Your task to perform on an android device: turn off wifi Image 0: 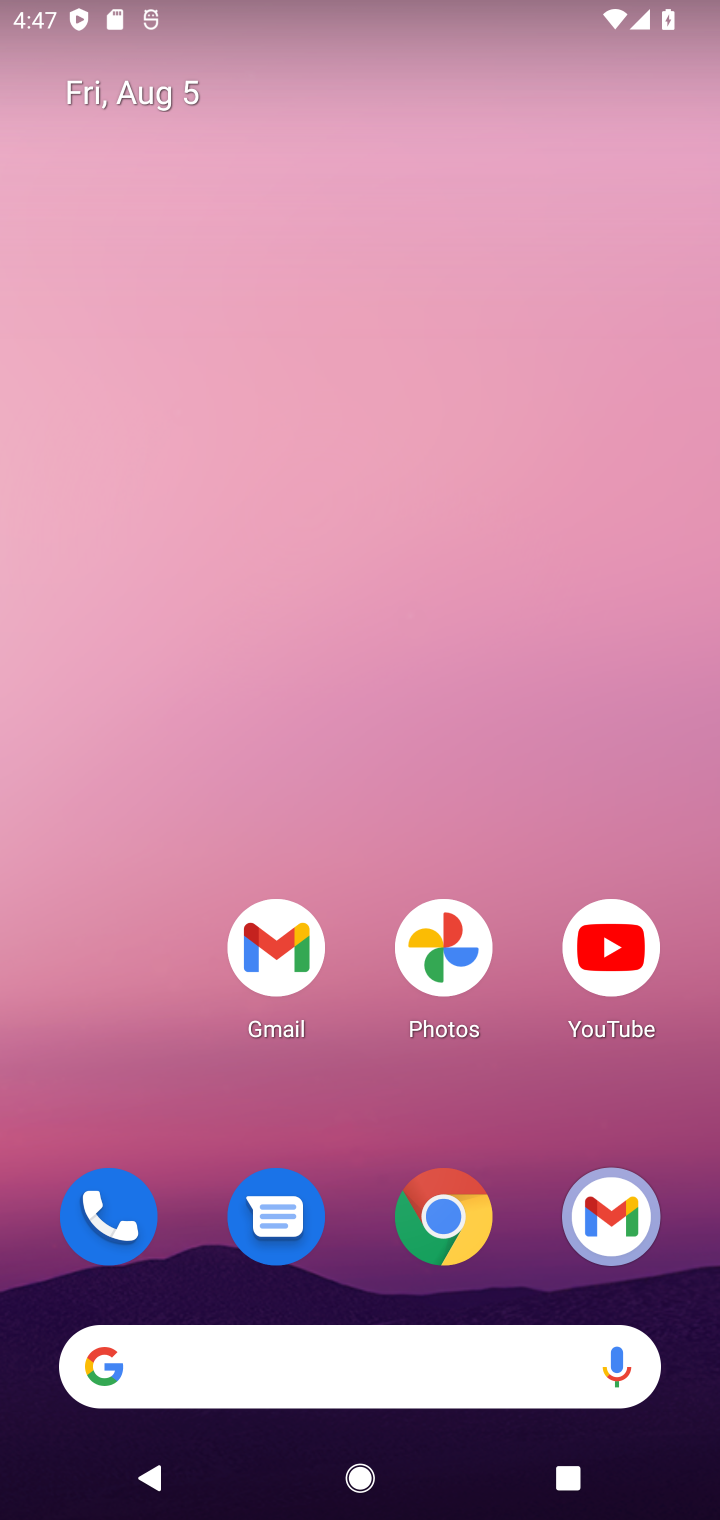
Step 0: drag from (339, 1122) to (163, 109)
Your task to perform on an android device: turn off wifi Image 1: 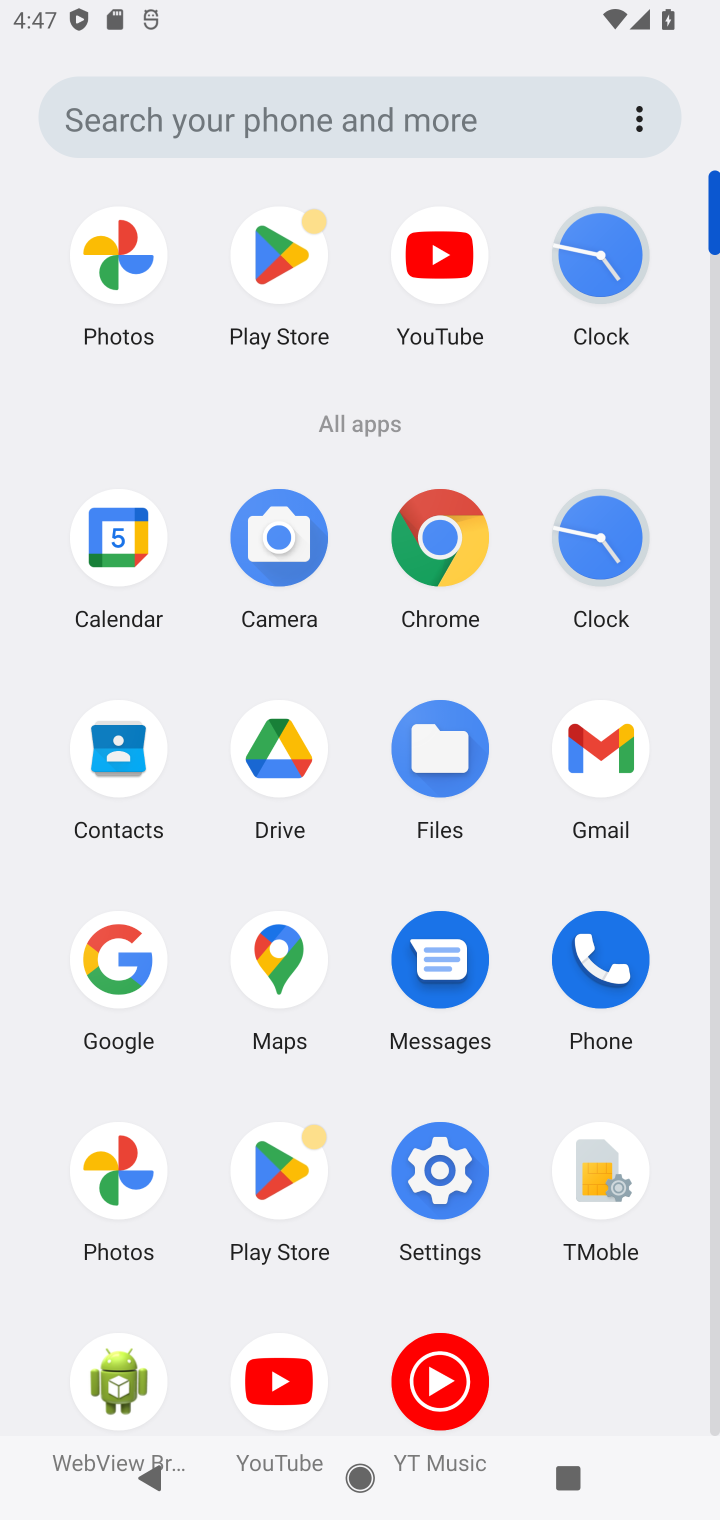
Step 1: click (433, 1162)
Your task to perform on an android device: turn off wifi Image 2: 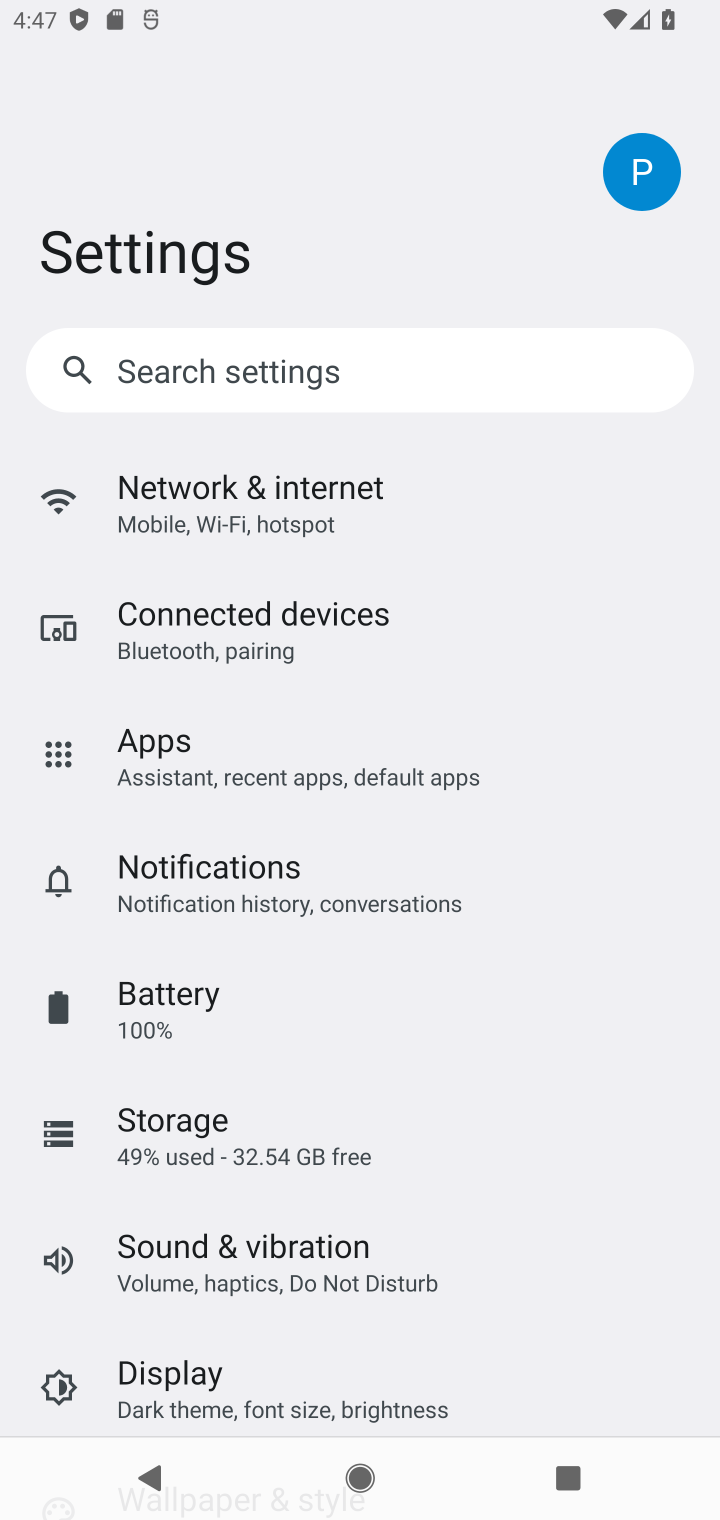
Step 2: click (303, 523)
Your task to perform on an android device: turn off wifi Image 3: 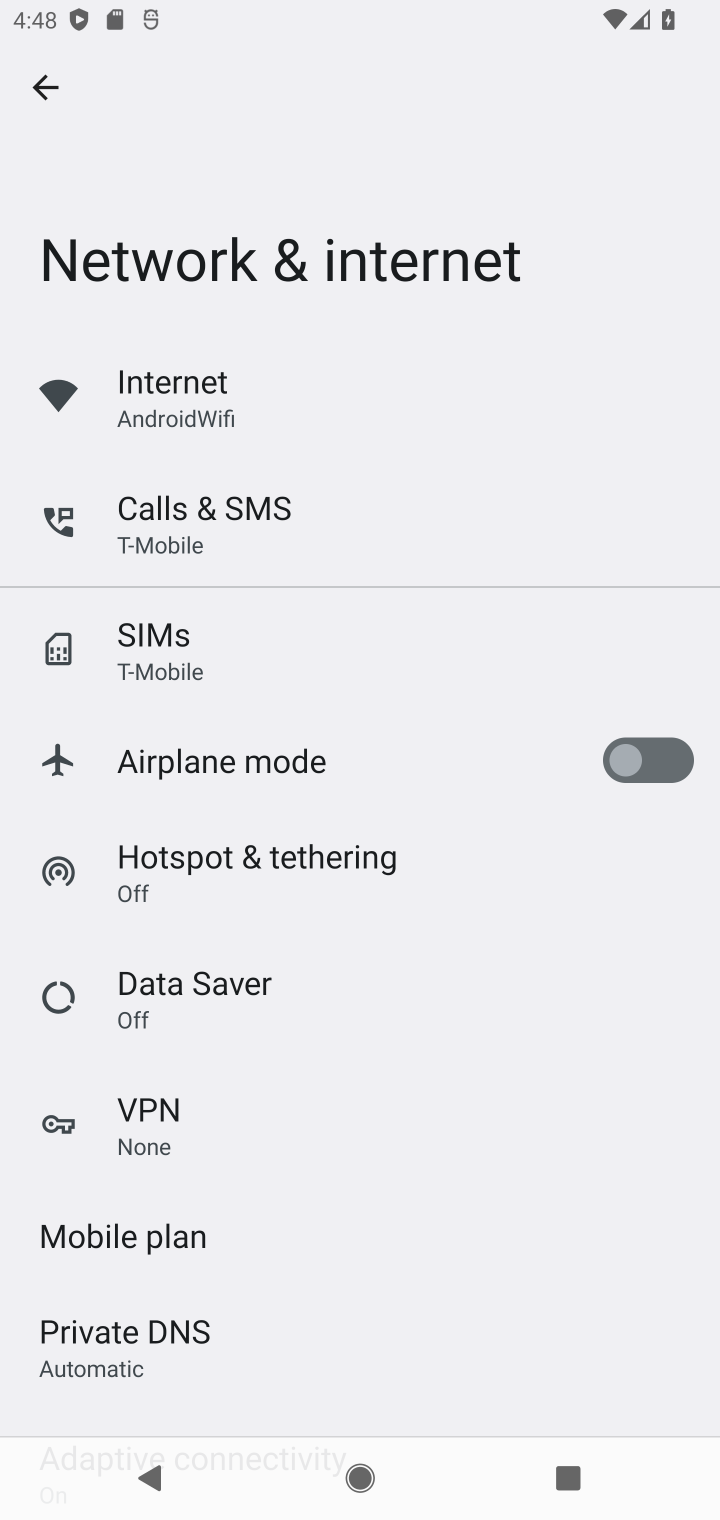
Step 3: click (322, 400)
Your task to perform on an android device: turn off wifi Image 4: 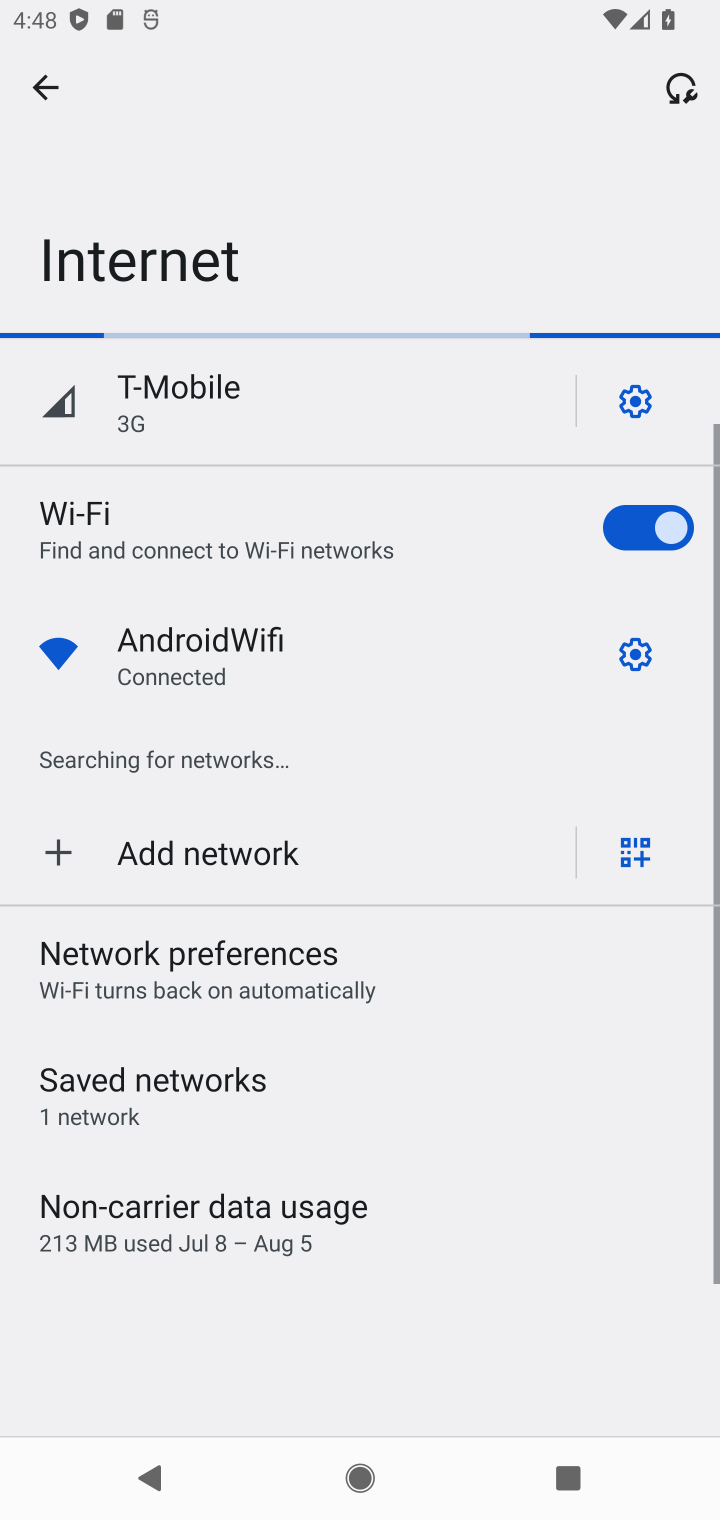
Step 4: click (636, 552)
Your task to perform on an android device: turn off wifi Image 5: 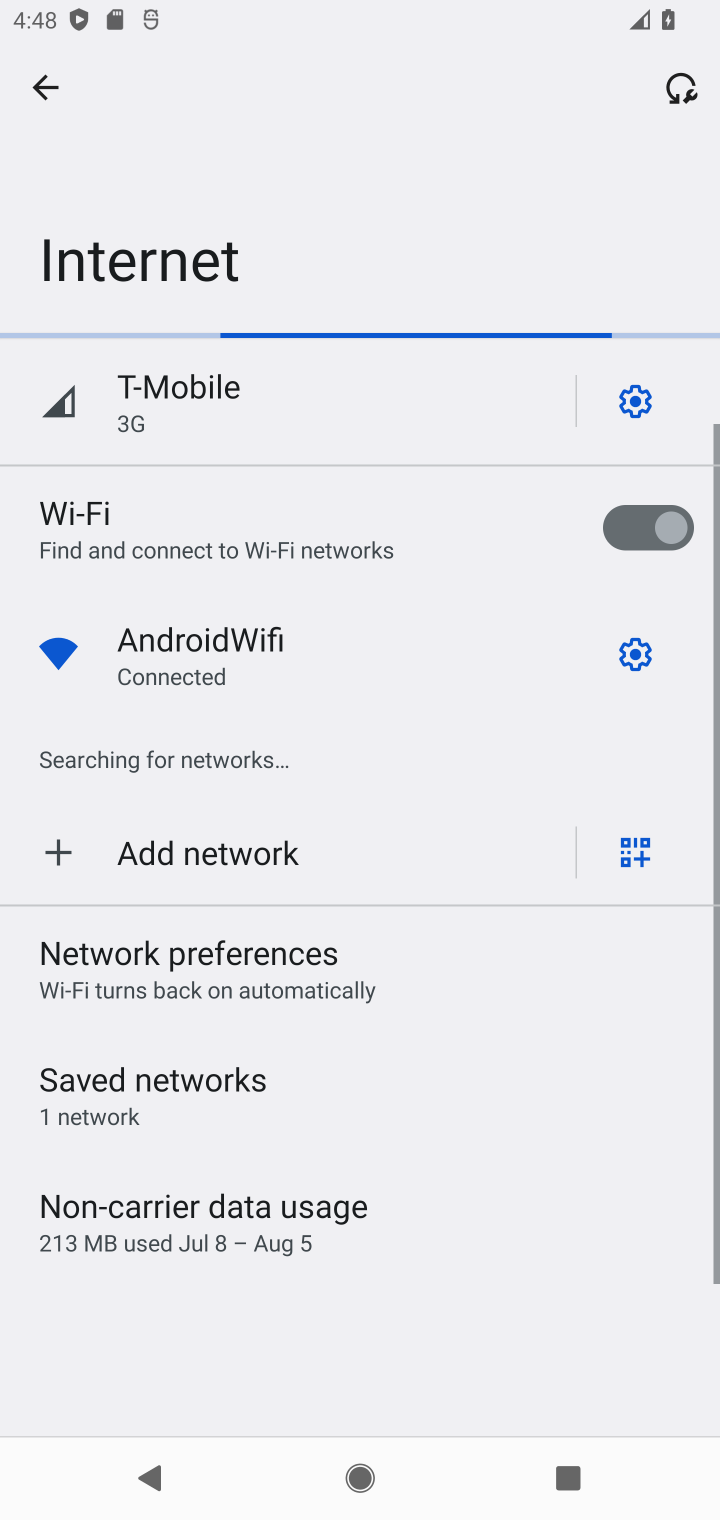
Step 5: task complete